Your task to perform on an android device: install app "Google Home" Image 0: 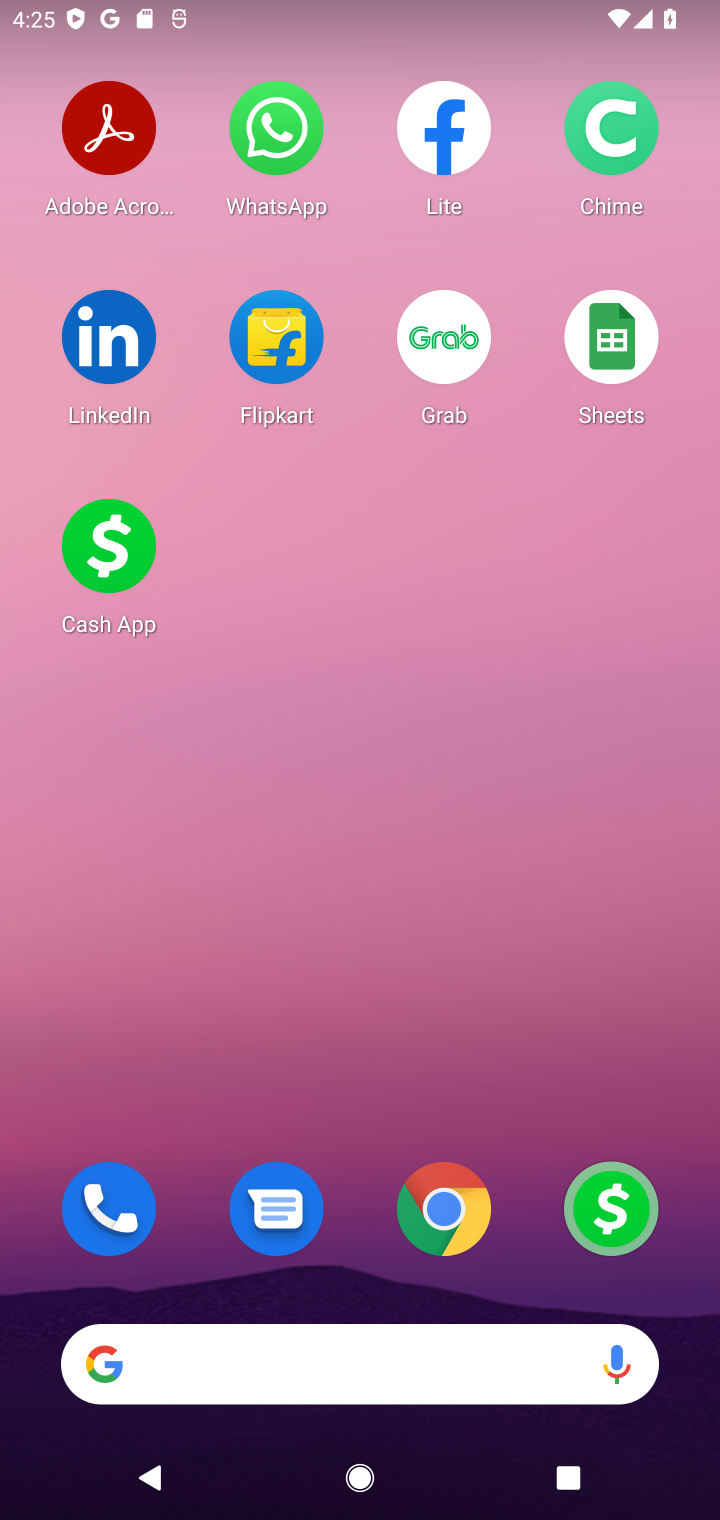
Step 0: drag from (354, 1253) to (360, 200)
Your task to perform on an android device: install app "Google Home" Image 1: 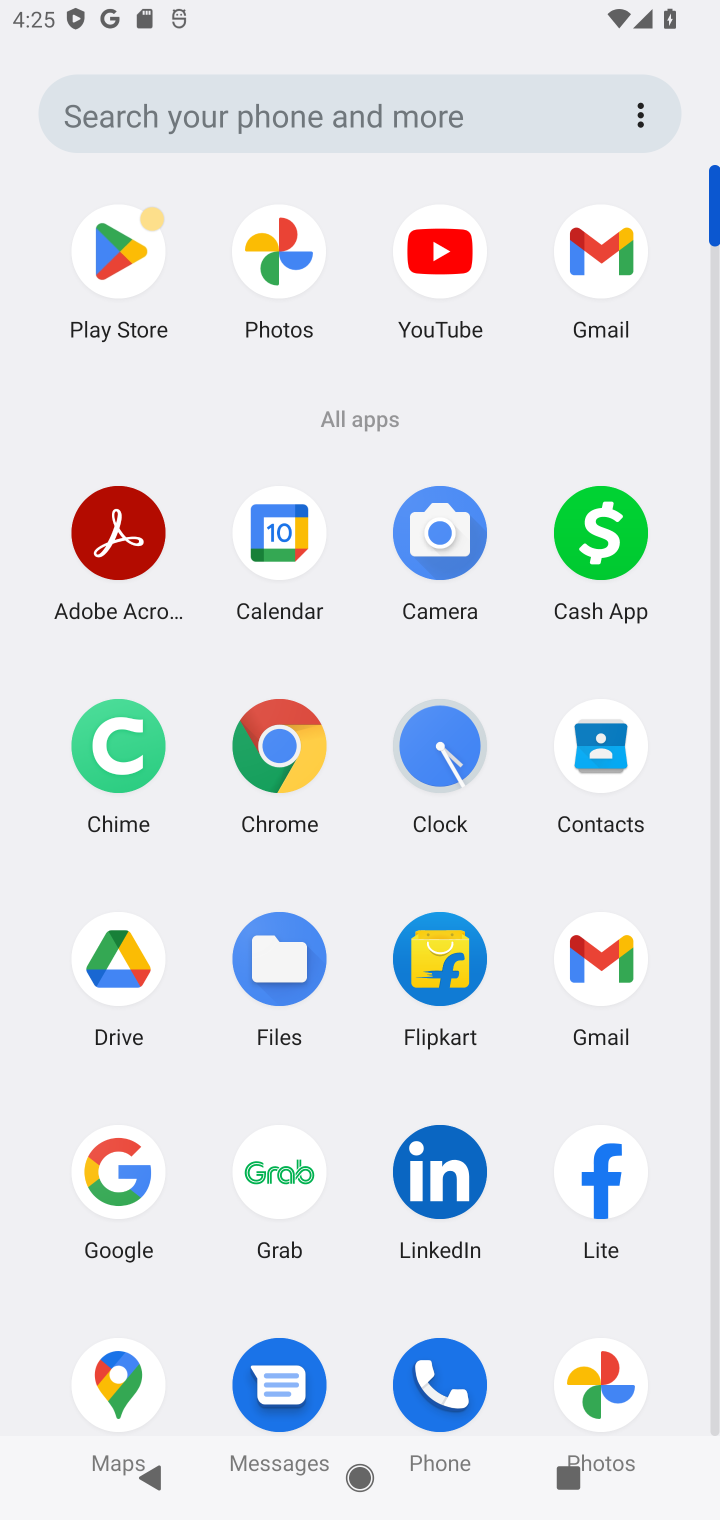
Step 1: click (147, 282)
Your task to perform on an android device: install app "Google Home" Image 2: 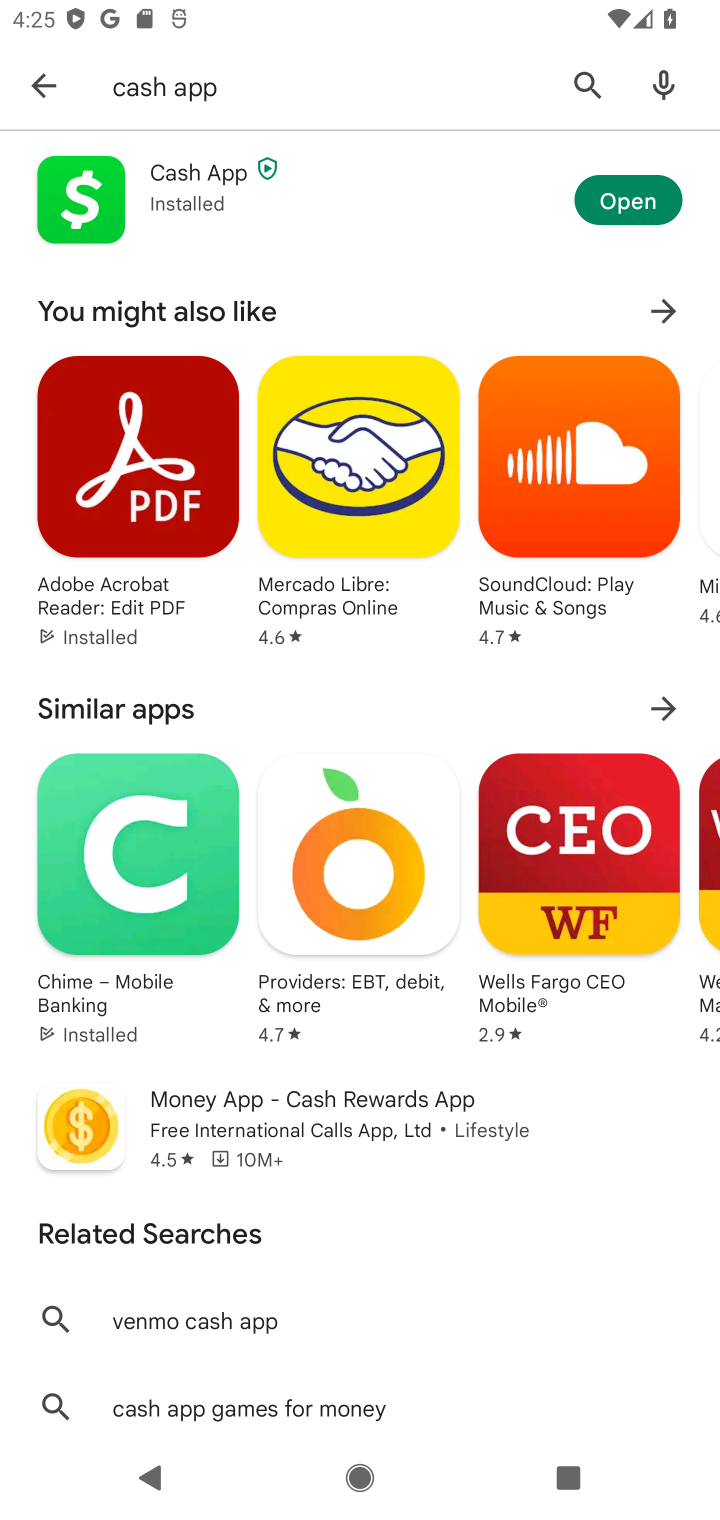
Step 2: click (606, 89)
Your task to perform on an android device: install app "Google Home" Image 3: 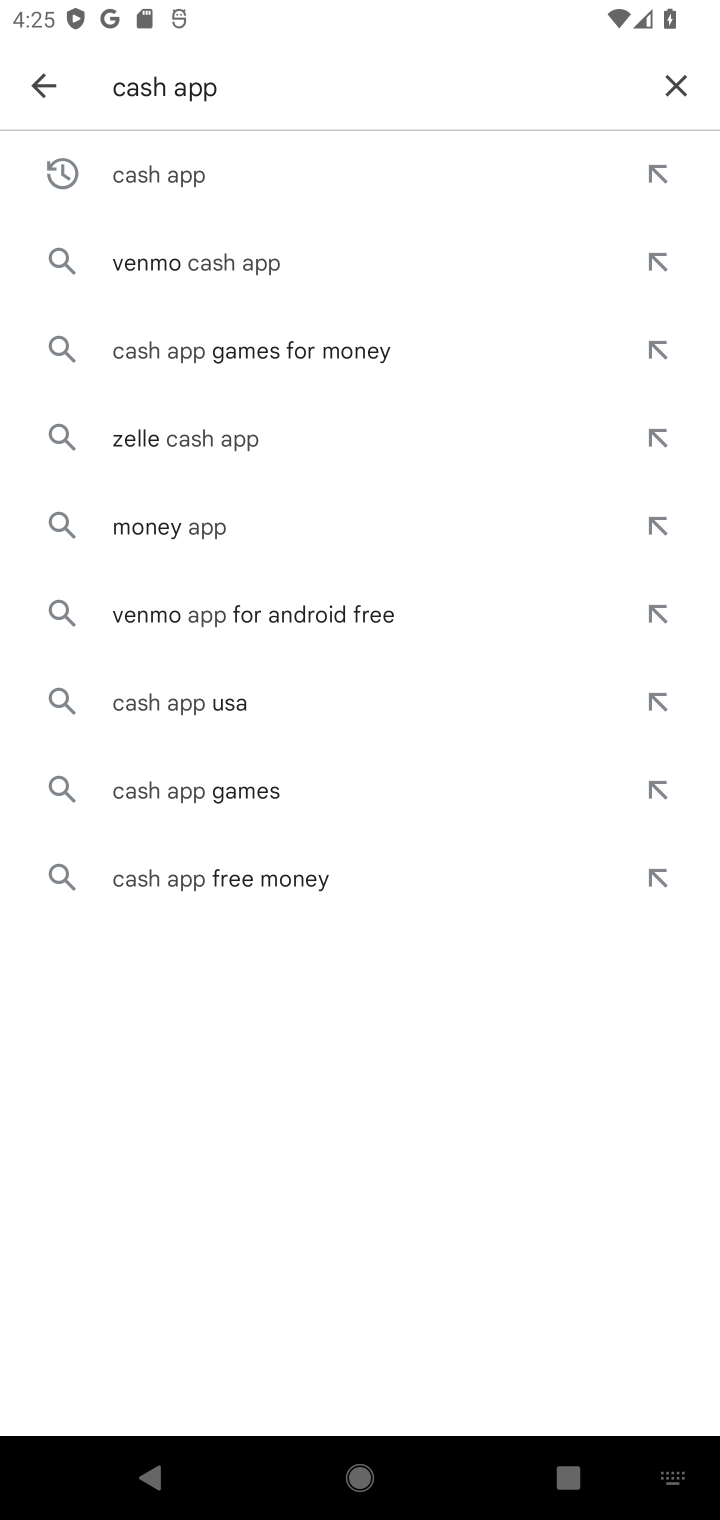
Step 3: click (664, 90)
Your task to perform on an android device: install app "Google Home" Image 4: 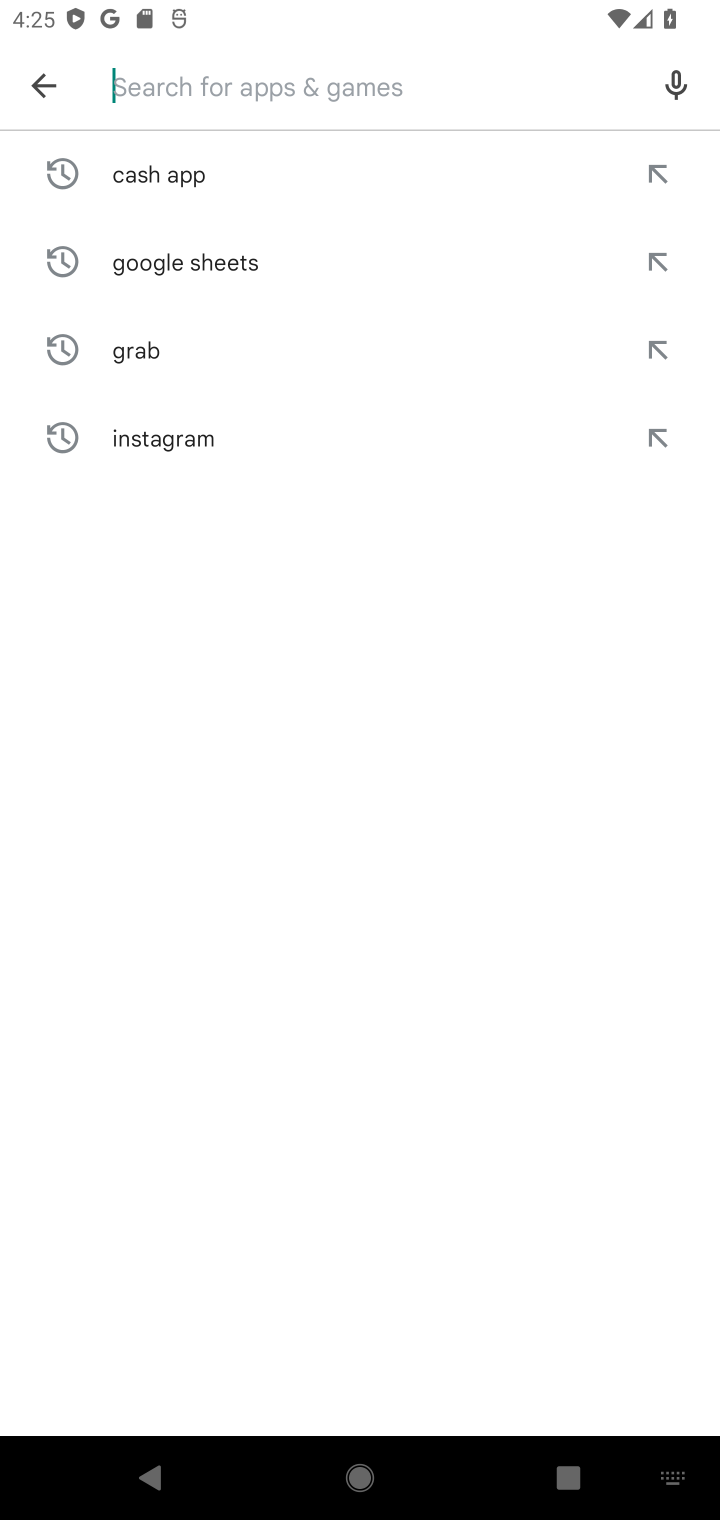
Step 4: type "google home"
Your task to perform on an android device: install app "Google Home" Image 5: 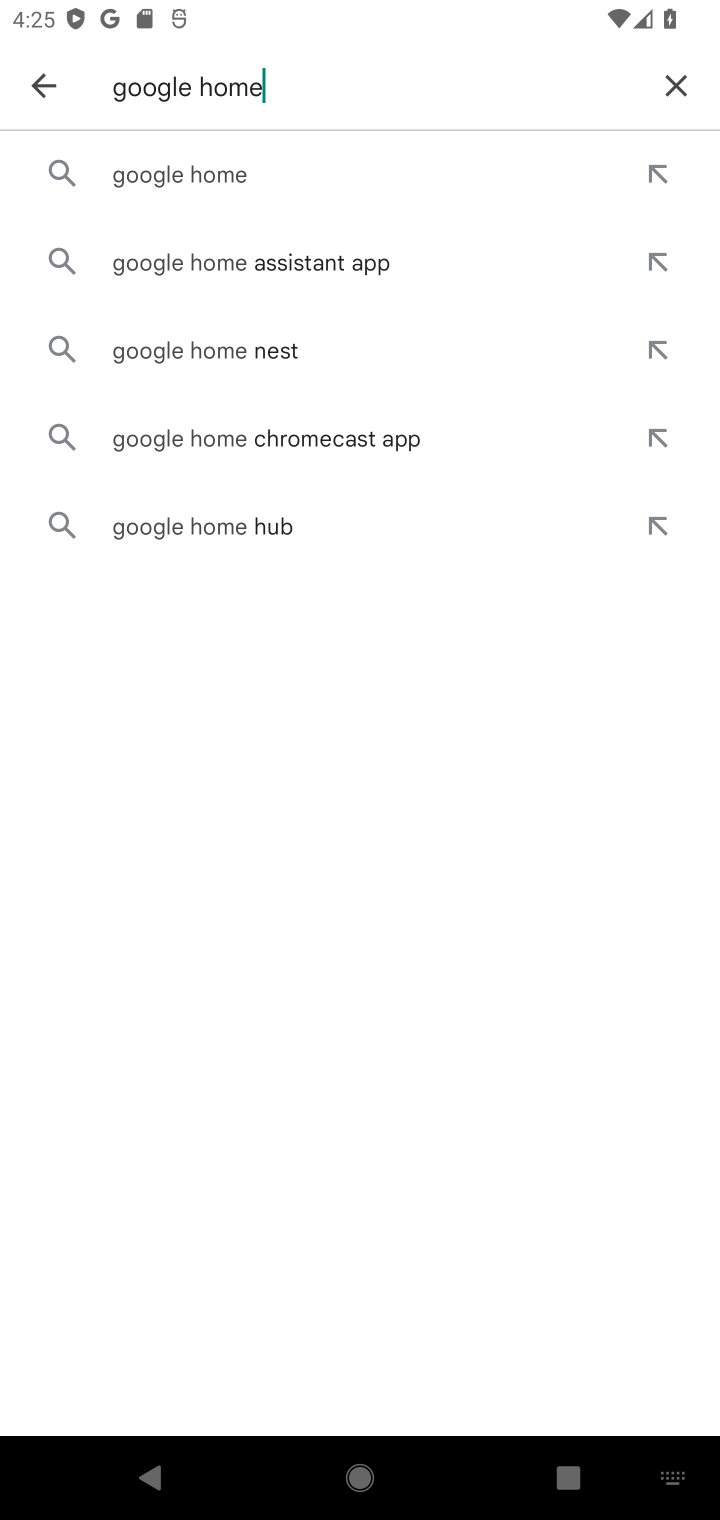
Step 5: click (239, 205)
Your task to perform on an android device: install app "Google Home" Image 6: 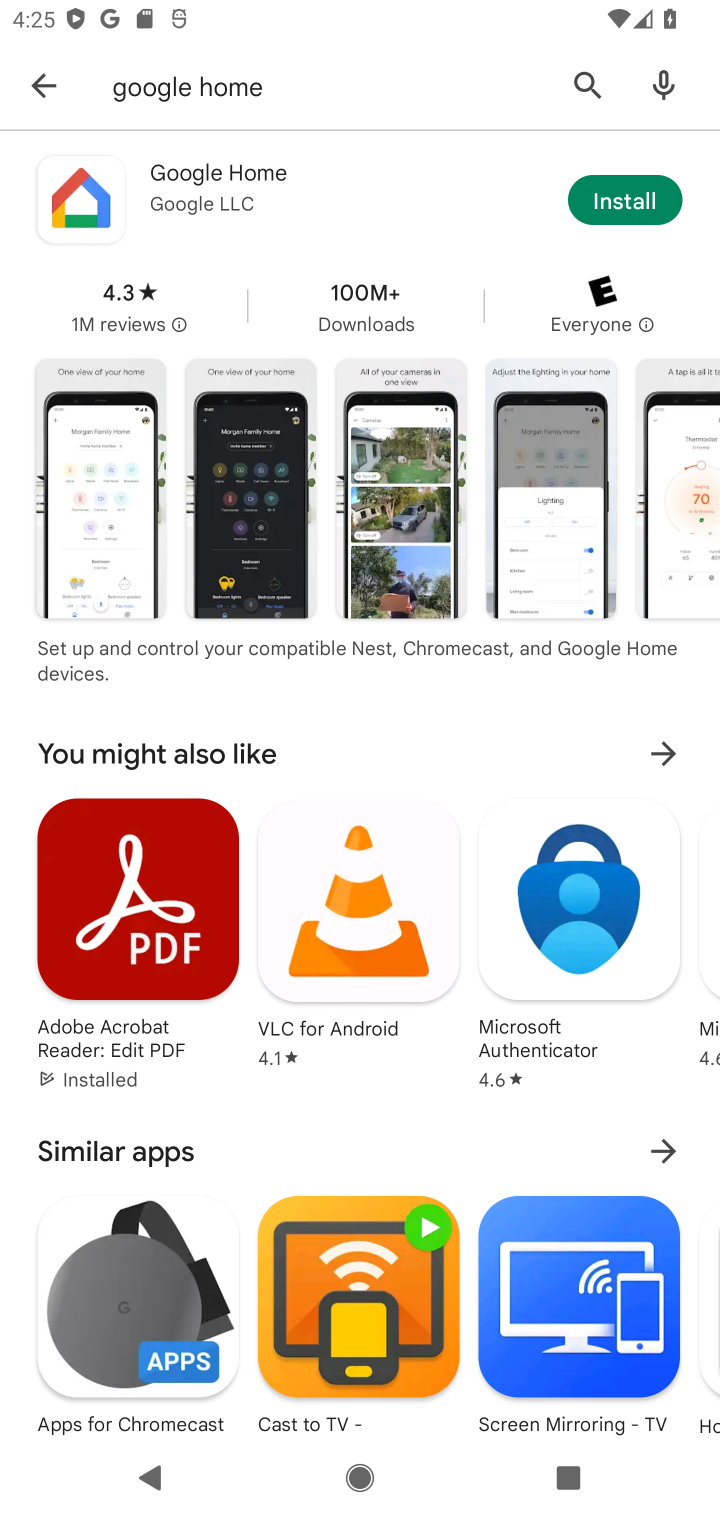
Step 6: click (629, 207)
Your task to perform on an android device: install app "Google Home" Image 7: 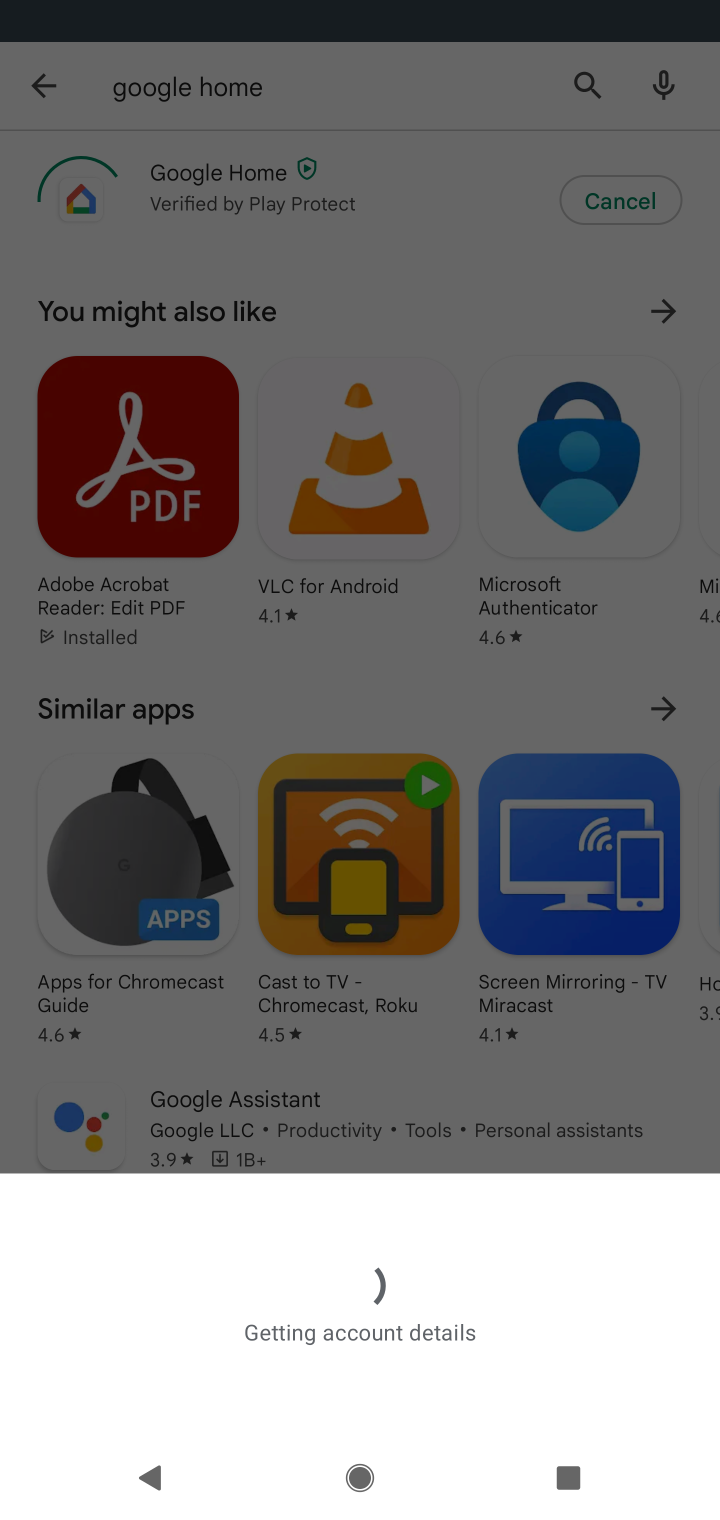
Step 7: task complete